Your task to perform on an android device: View the shopping cart on target.com. Search for logitech g pro on target.com, select the first entry, and add it to the cart. Image 0: 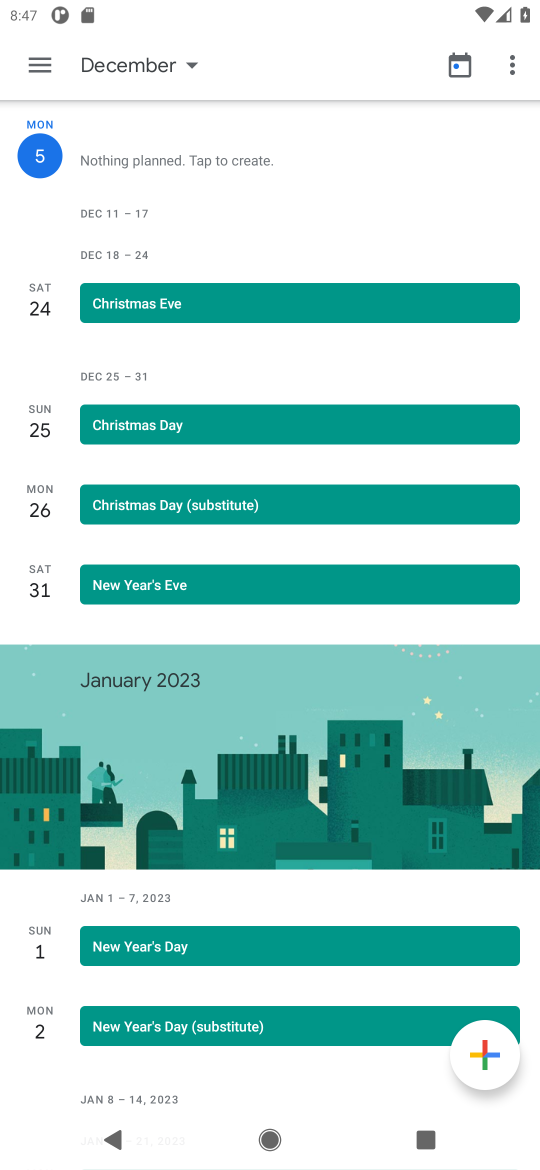
Step 0: press home button
Your task to perform on an android device: View the shopping cart on target.com. Search for logitech g pro on target.com, select the first entry, and add it to the cart. Image 1: 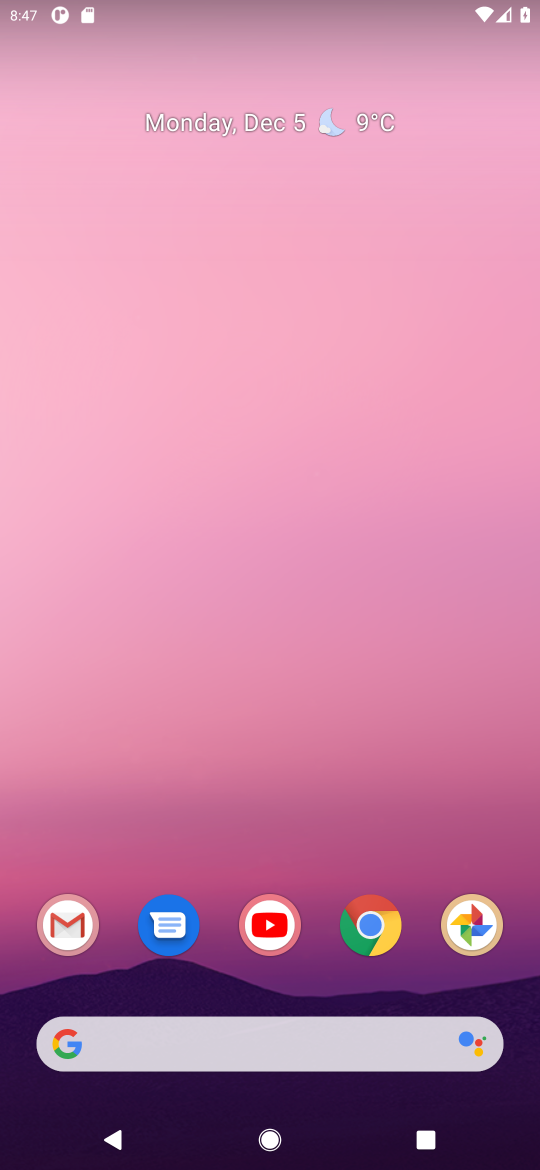
Step 1: click (375, 934)
Your task to perform on an android device: View the shopping cart on target.com. Search for logitech g pro on target.com, select the first entry, and add it to the cart. Image 2: 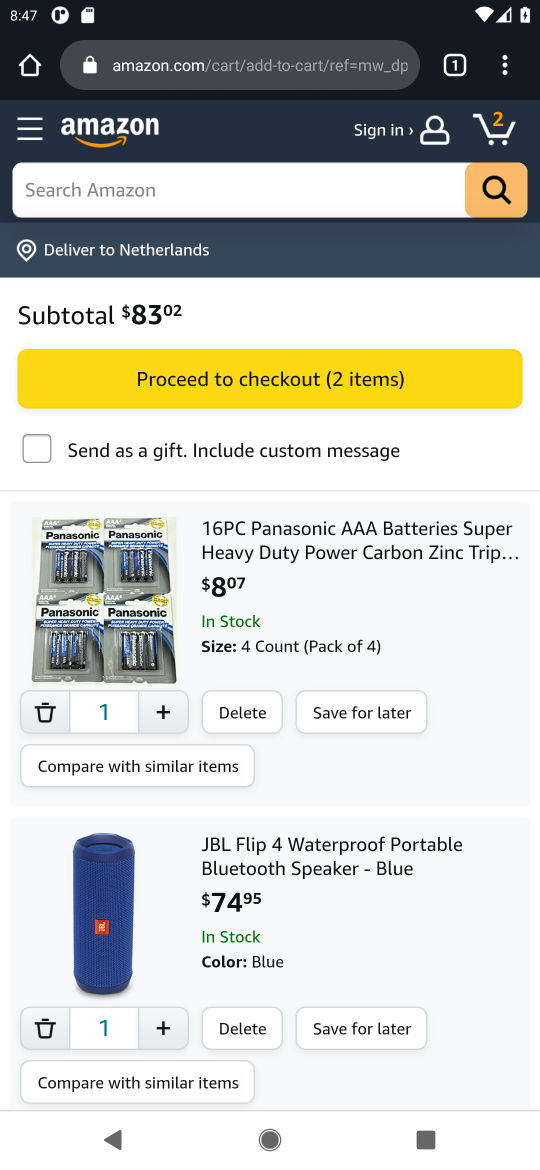
Step 2: click (219, 76)
Your task to perform on an android device: View the shopping cart on target.com. Search for logitech g pro on target.com, select the first entry, and add it to the cart. Image 3: 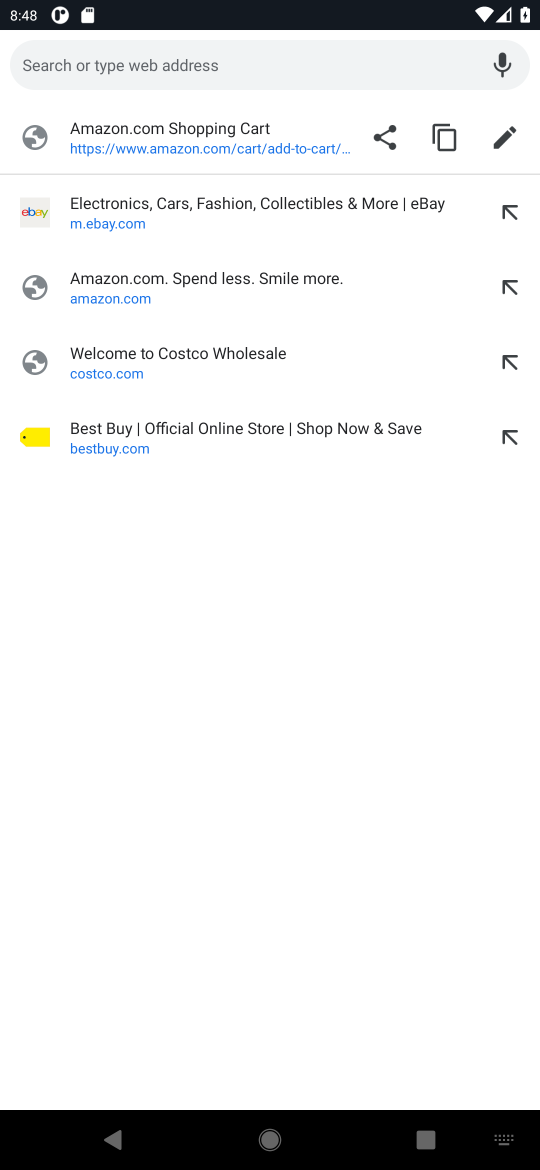
Step 3: type "target.com"
Your task to perform on an android device: View the shopping cart on target.com. Search for logitech g pro on target.com, select the first entry, and add it to the cart. Image 4: 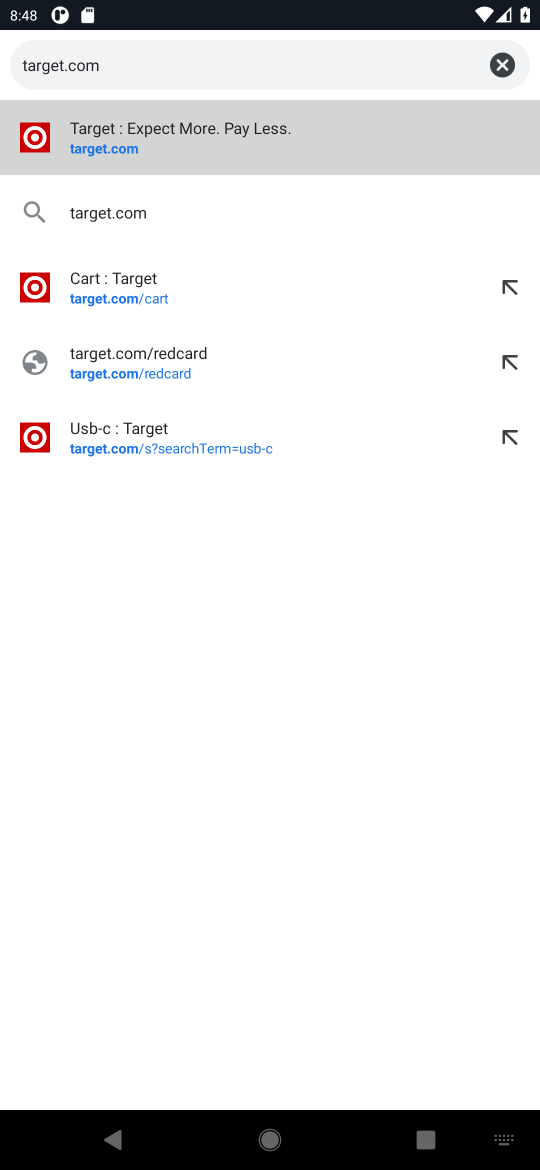
Step 4: click (151, 146)
Your task to perform on an android device: View the shopping cart on target.com. Search for logitech g pro on target.com, select the first entry, and add it to the cart. Image 5: 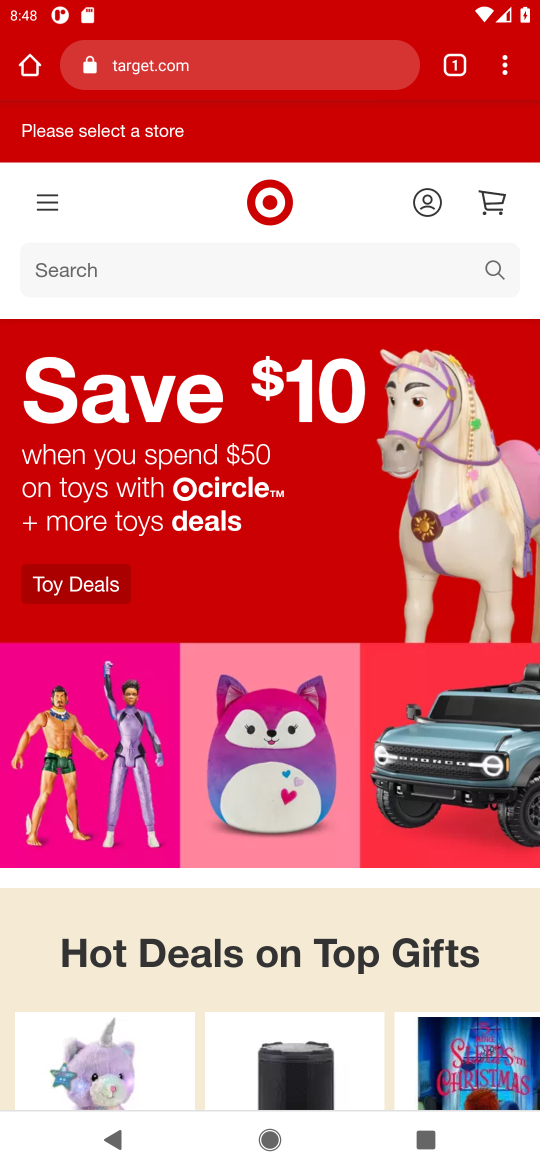
Step 5: click (489, 203)
Your task to perform on an android device: View the shopping cart on target.com. Search for logitech g pro on target.com, select the first entry, and add it to the cart. Image 6: 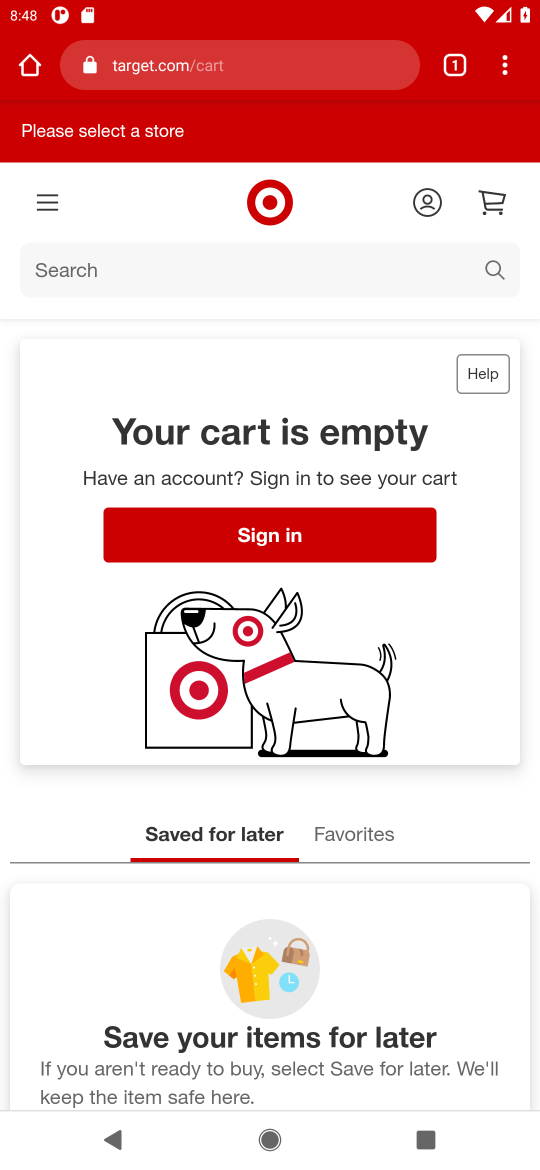
Step 6: click (67, 277)
Your task to perform on an android device: View the shopping cart on target.com. Search for logitech g pro on target.com, select the first entry, and add it to the cart. Image 7: 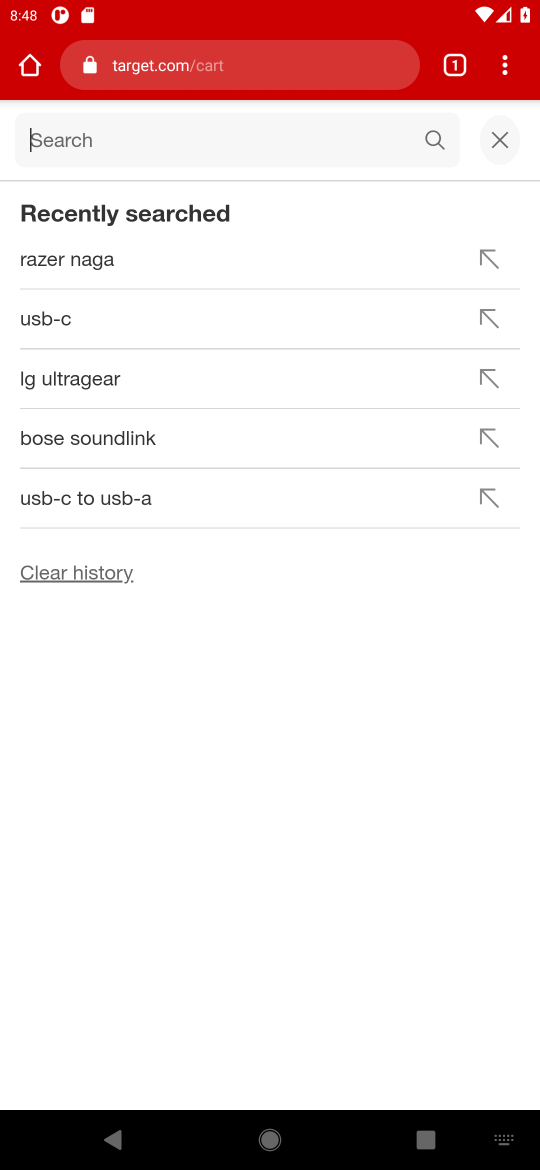
Step 7: type " logitech g pro"
Your task to perform on an android device: View the shopping cart on target.com. Search for logitech g pro on target.com, select the first entry, and add it to the cart. Image 8: 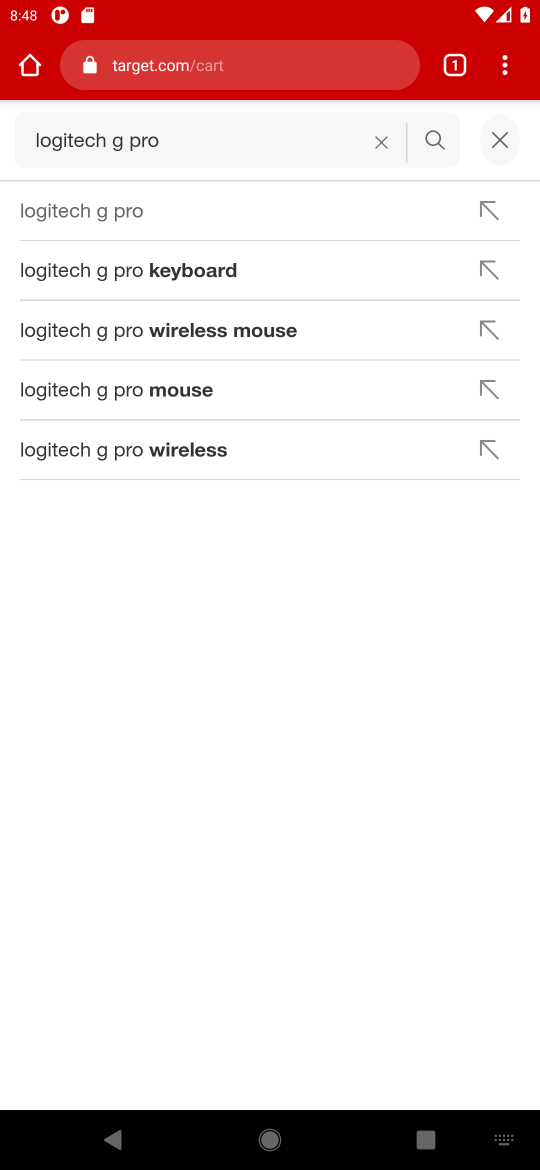
Step 8: click (83, 222)
Your task to perform on an android device: View the shopping cart on target.com. Search for logitech g pro on target.com, select the first entry, and add it to the cart. Image 9: 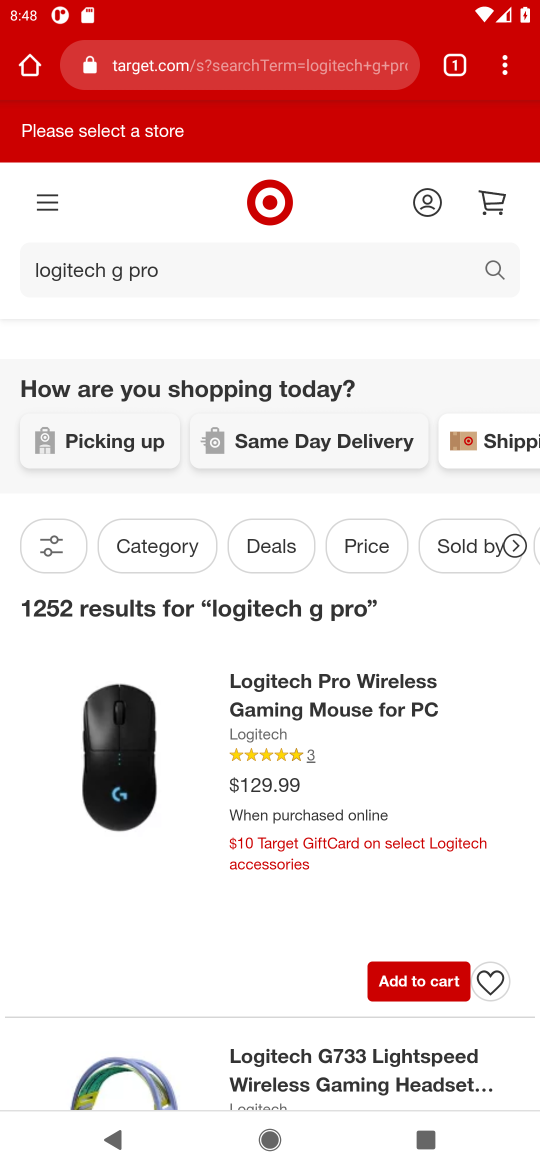
Step 9: task complete